Your task to perform on an android device: Open CNN.com Image 0: 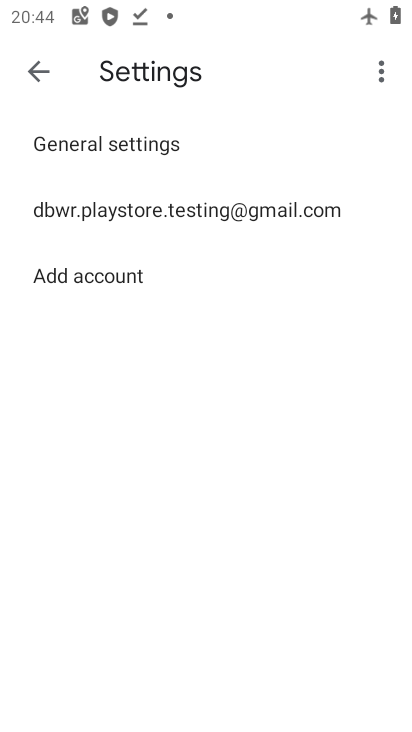
Step 0: click (34, 63)
Your task to perform on an android device: Open CNN.com Image 1: 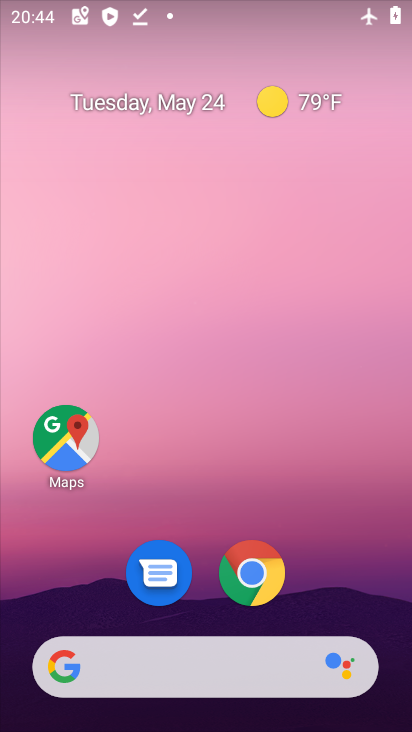
Step 1: drag from (252, 692) to (136, 71)
Your task to perform on an android device: Open CNN.com Image 2: 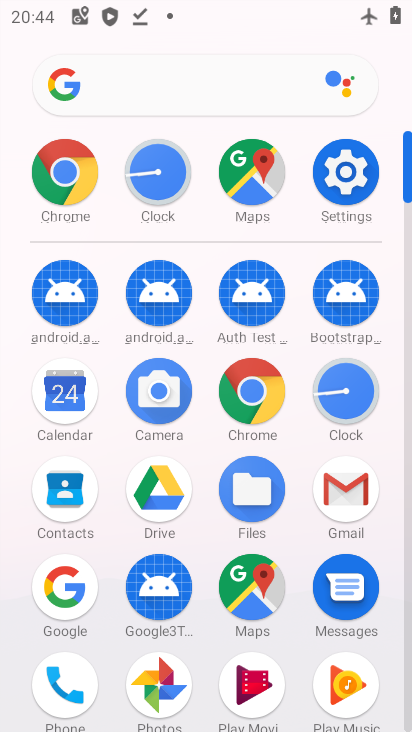
Step 2: click (56, 171)
Your task to perform on an android device: Open CNN.com Image 3: 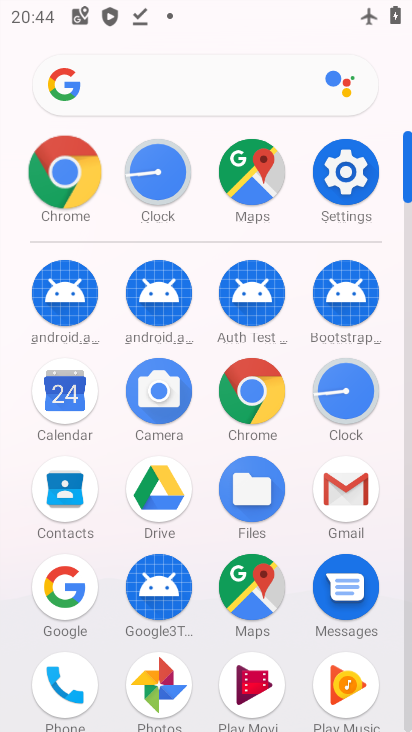
Step 3: click (61, 168)
Your task to perform on an android device: Open CNN.com Image 4: 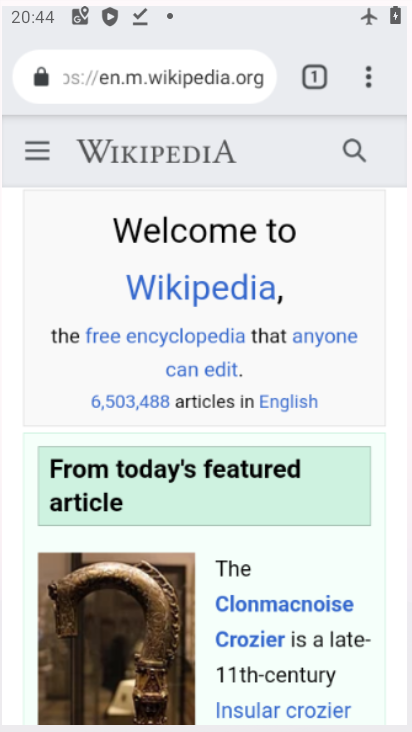
Step 4: click (61, 168)
Your task to perform on an android device: Open CNN.com Image 5: 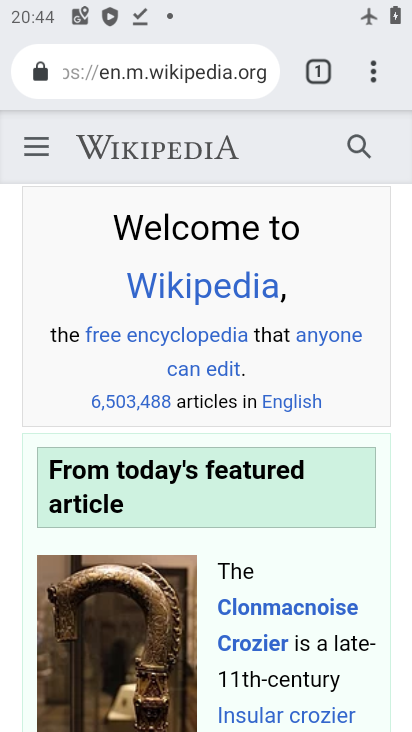
Step 5: drag from (372, 79) to (120, 140)
Your task to perform on an android device: Open CNN.com Image 6: 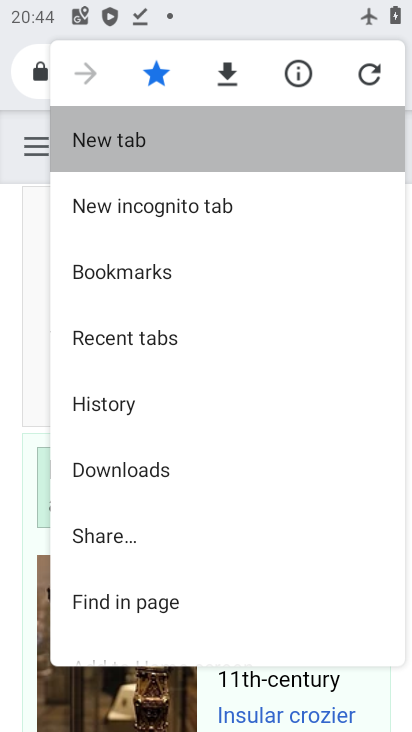
Step 6: click (120, 138)
Your task to perform on an android device: Open CNN.com Image 7: 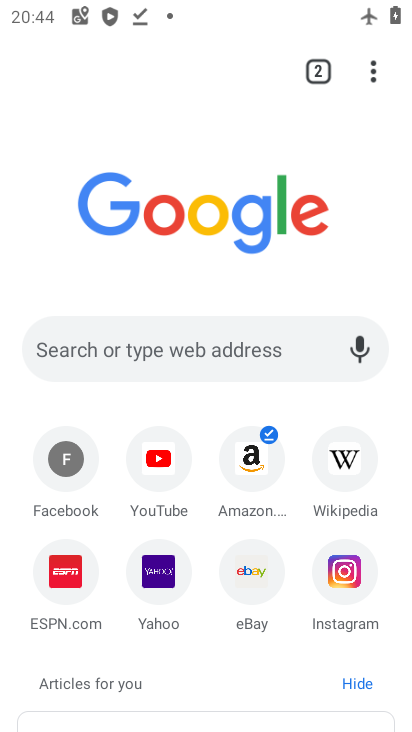
Step 7: click (79, 351)
Your task to perform on an android device: Open CNN.com Image 8: 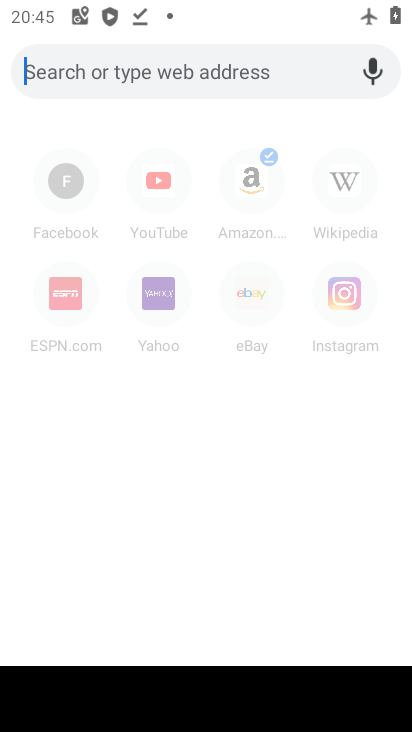
Step 8: type "cnn.com"
Your task to perform on an android device: Open CNN.com Image 9: 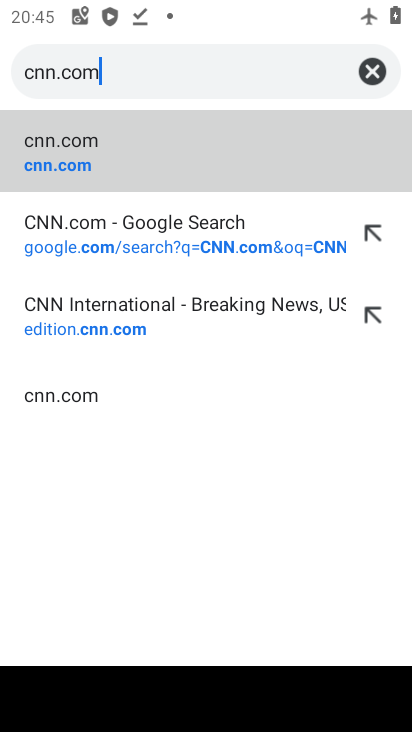
Step 9: click (53, 145)
Your task to perform on an android device: Open CNN.com Image 10: 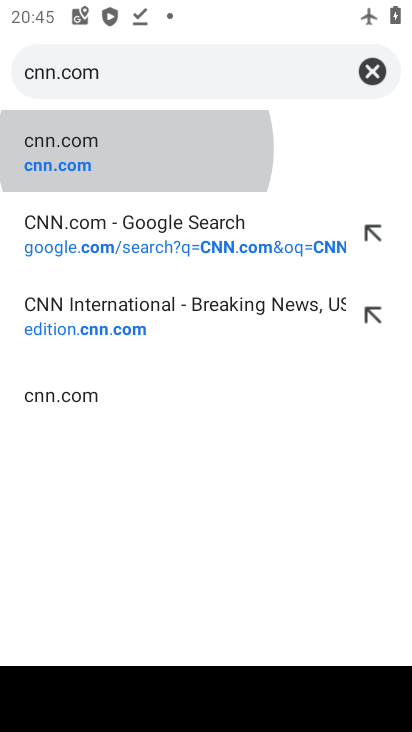
Step 10: click (59, 144)
Your task to perform on an android device: Open CNN.com Image 11: 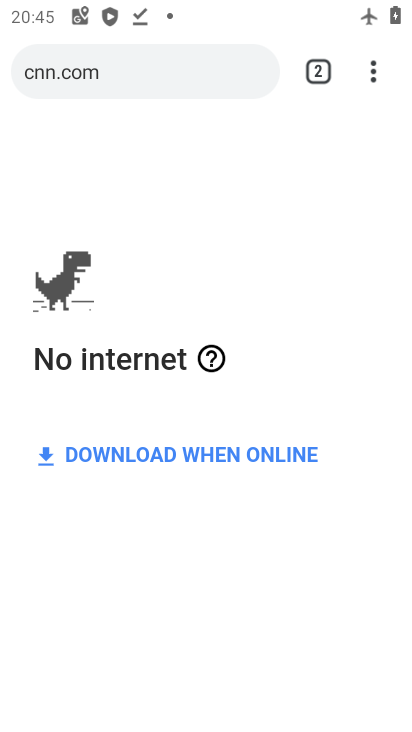
Step 11: task complete